Your task to perform on an android device: toggle sleep mode Image 0: 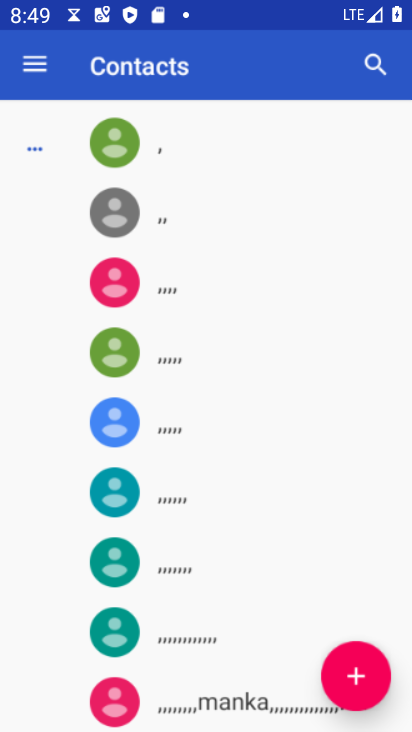
Step 0: drag from (335, 669) to (271, 137)
Your task to perform on an android device: toggle sleep mode Image 1: 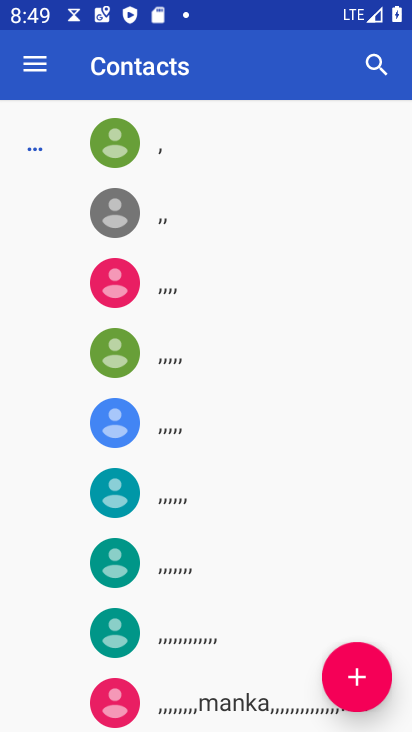
Step 1: press back button
Your task to perform on an android device: toggle sleep mode Image 2: 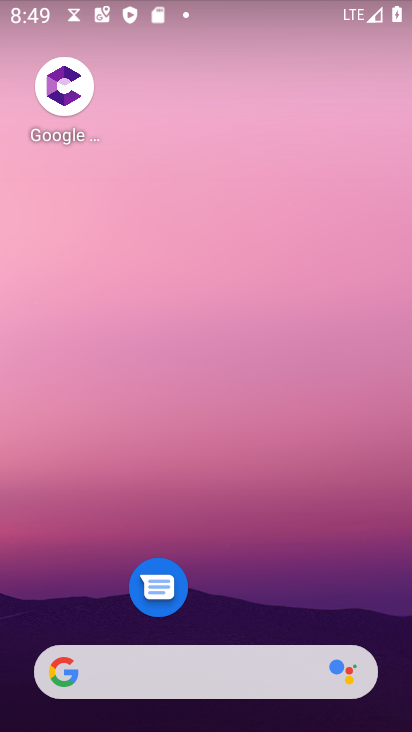
Step 2: drag from (319, 567) to (174, 41)
Your task to perform on an android device: toggle sleep mode Image 3: 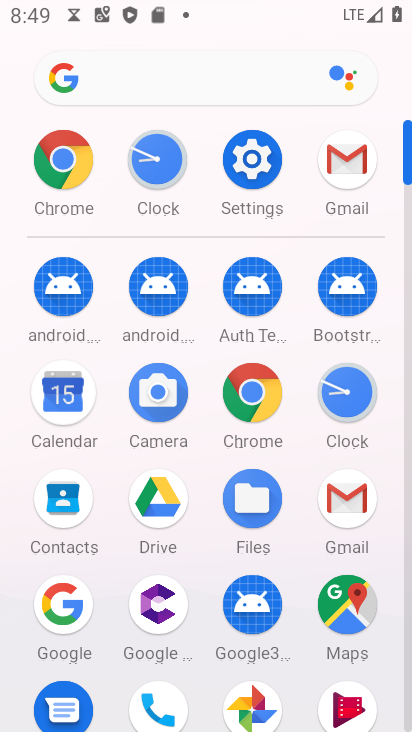
Step 3: click (258, 171)
Your task to perform on an android device: toggle sleep mode Image 4: 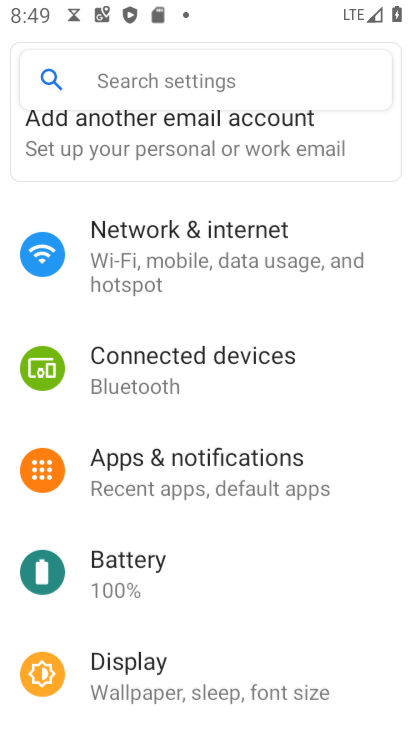
Step 4: click (255, 164)
Your task to perform on an android device: toggle sleep mode Image 5: 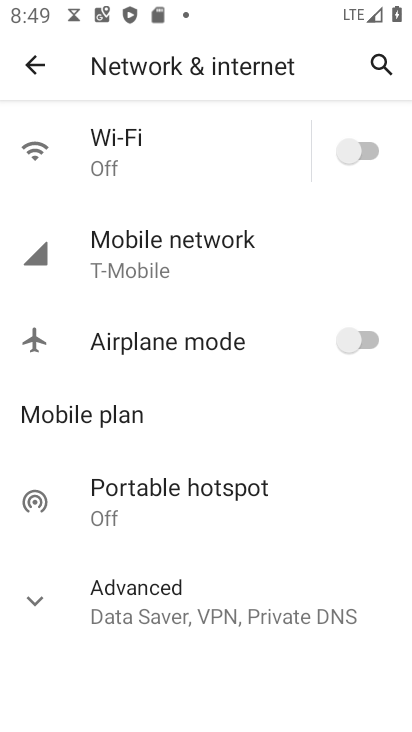
Step 5: click (29, 60)
Your task to perform on an android device: toggle sleep mode Image 6: 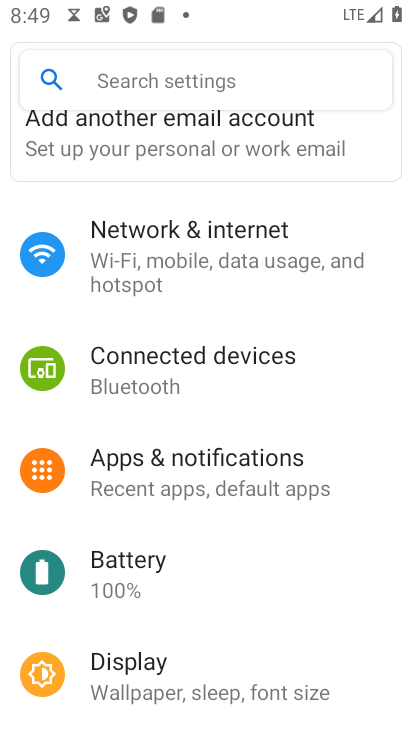
Step 6: click (136, 679)
Your task to perform on an android device: toggle sleep mode Image 7: 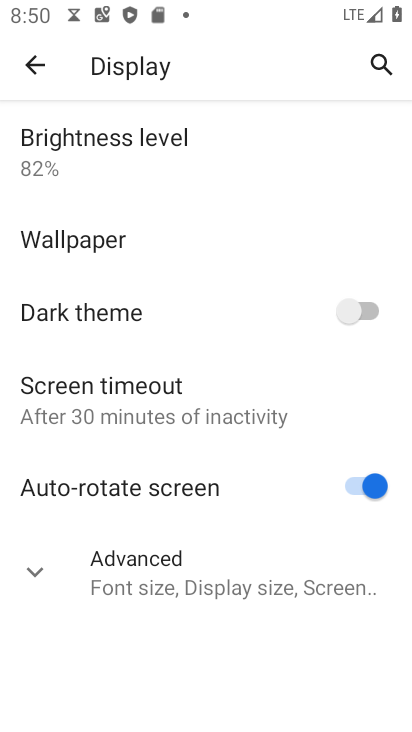
Step 7: click (53, 395)
Your task to perform on an android device: toggle sleep mode Image 8: 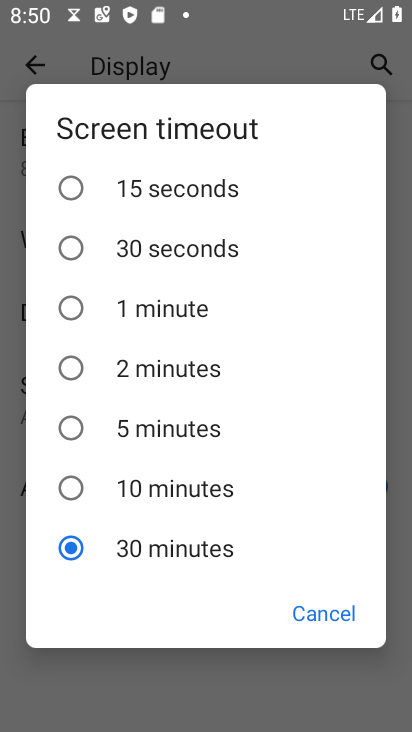
Step 8: click (61, 428)
Your task to perform on an android device: toggle sleep mode Image 9: 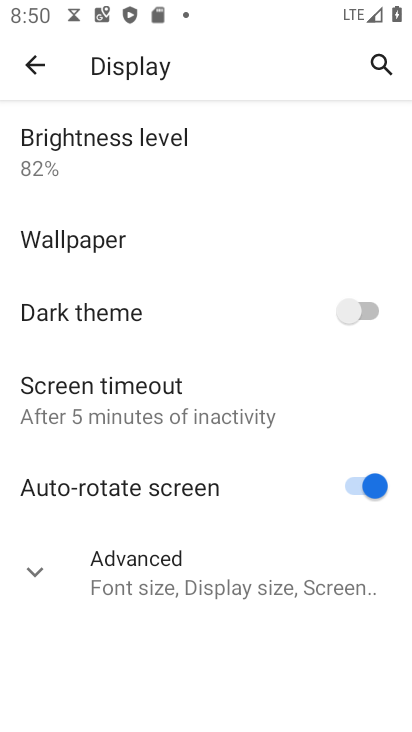
Step 9: task complete